Your task to perform on an android device: turn on wifi Image 0: 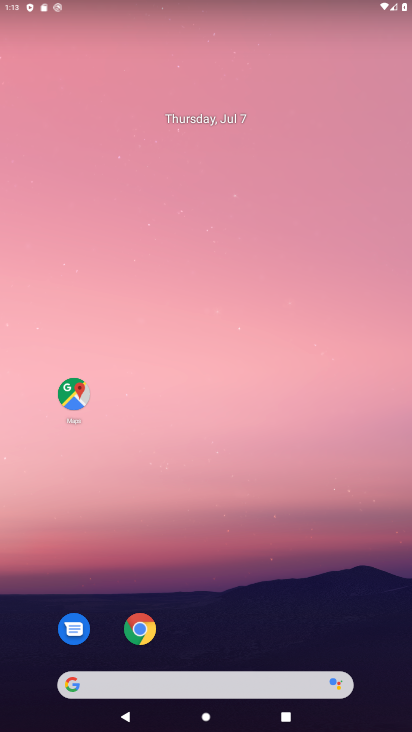
Step 0: drag from (190, 620) to (200, 167)
Your task to perform on an android device: turn on wifi Image 1: 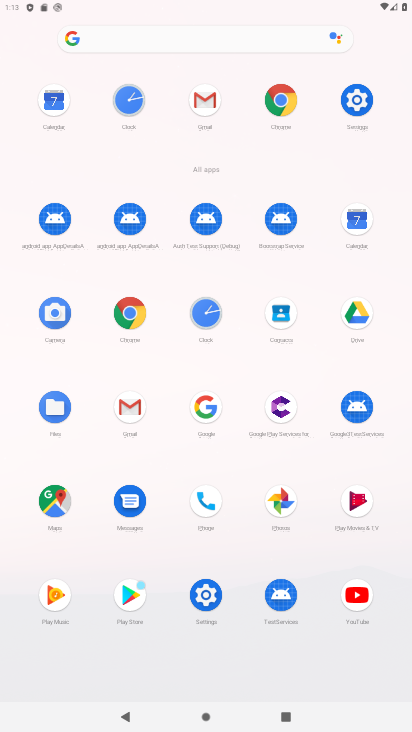
Step 1: click (363, 108)
Your task to perform on an android device: turn on wifi Image 2: 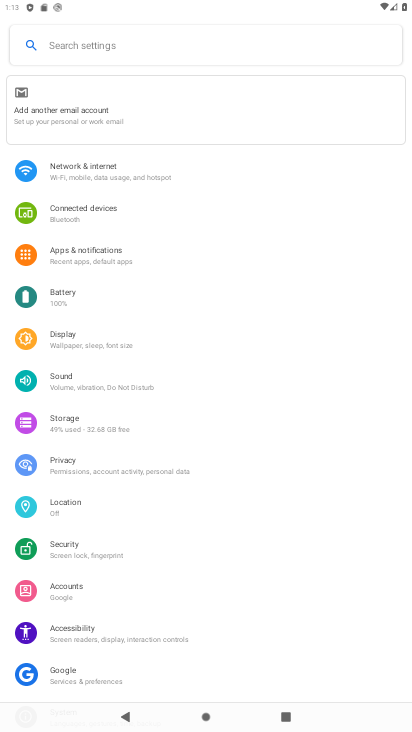
Step 2: click (122, 167)
Your task to perform on an android device: turn on wifi Image 3: 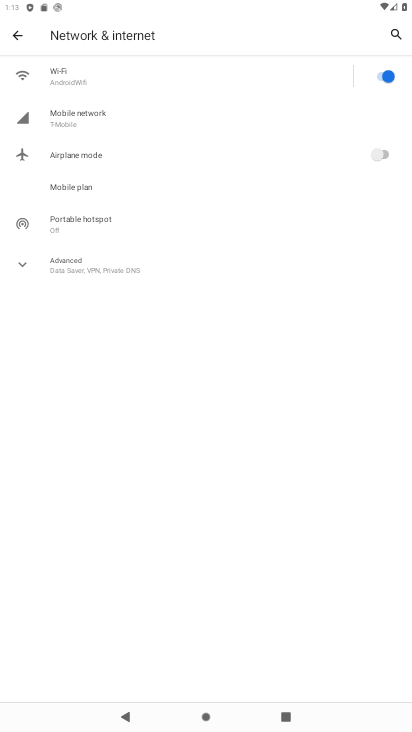
Step 3: task complete